Your task to perform on an android device: When is my next appointment? Image 0: 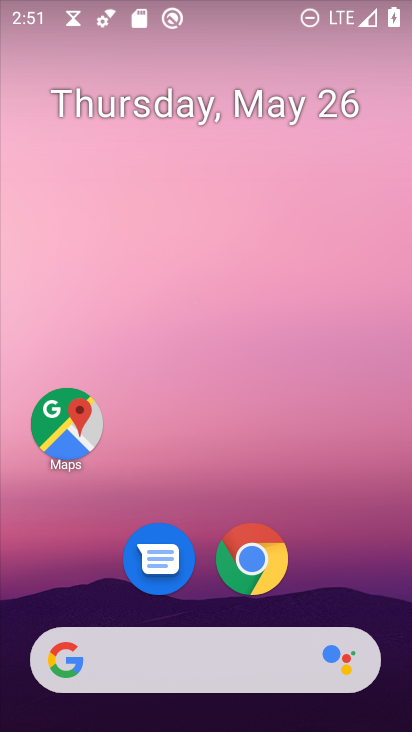
Step 0: drag from (233, 652) to (363, 111)
Your task to perform on an android device: When is my next appointment? Image 1: 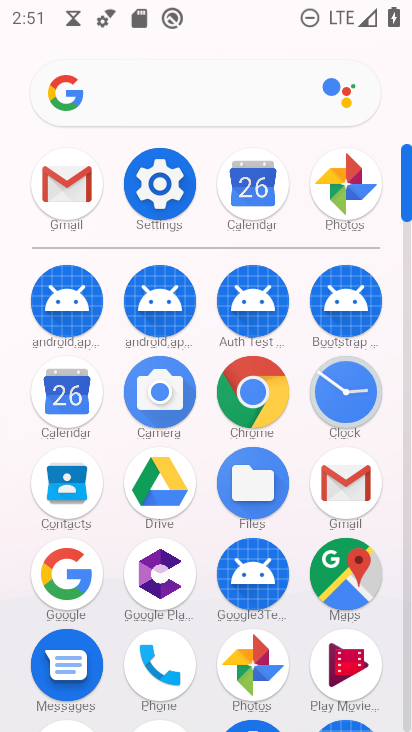
Step 1: click (63, 405)
Your task to perform on an android device: When is my next appointment? Image 2: 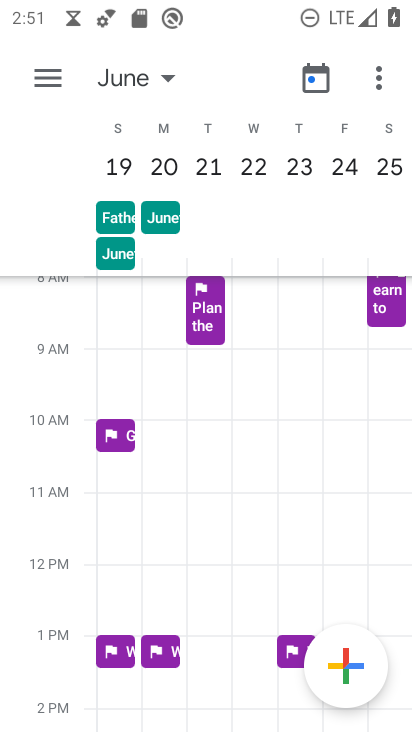
Step 2: click (114, 80)
Your task to perform on an android device: When is my next appointment? Image 3: 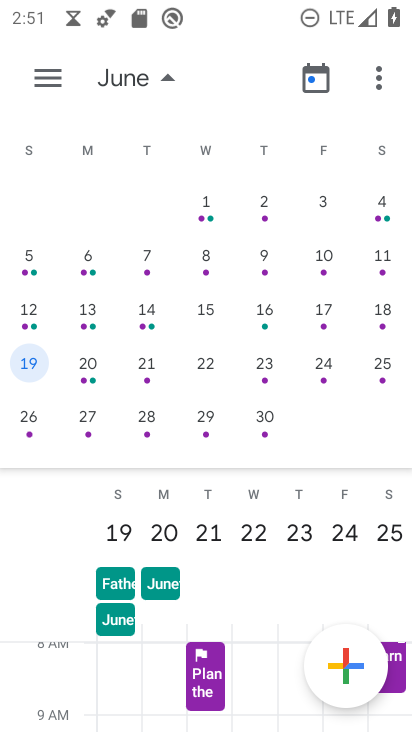
Step 3: drag from (110, 379) to (348, 378)
Your task to perform on an android device: When is my next appointment? Image 4: 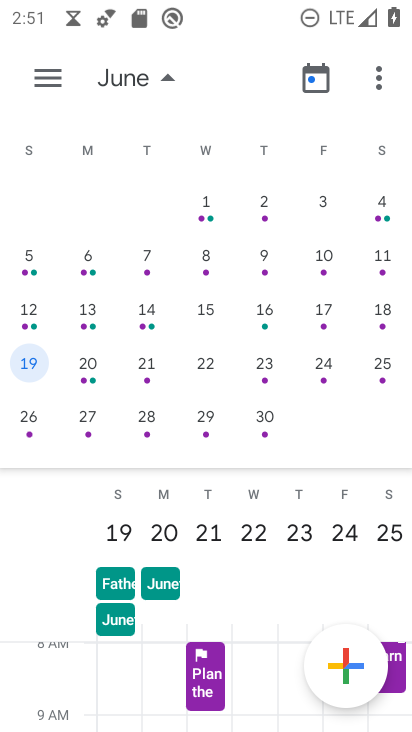
Step 4: drag from (123, 317) to (394, 395)
Your task to perform on an android device: When is my next appointment? Image 5: 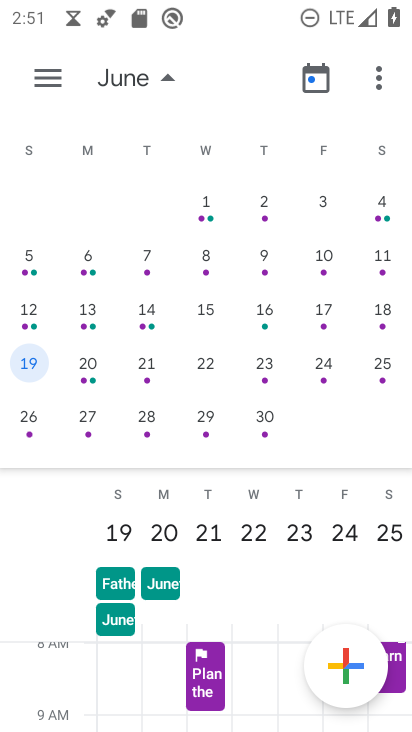
Step 5: drag from (60, 283) to (405, 284)
Your task to perform on an android device: When is my next appointment? Image 6: 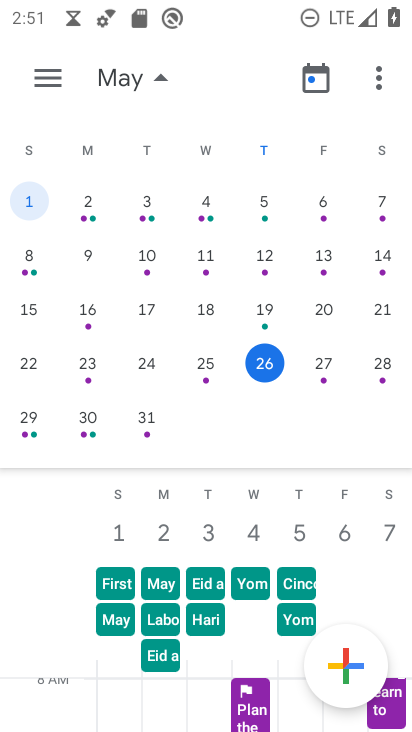
Step 6: drag from (196, 309) to (405, 304)
Your task to perform on an android device: When is my next appointment? Image 7: 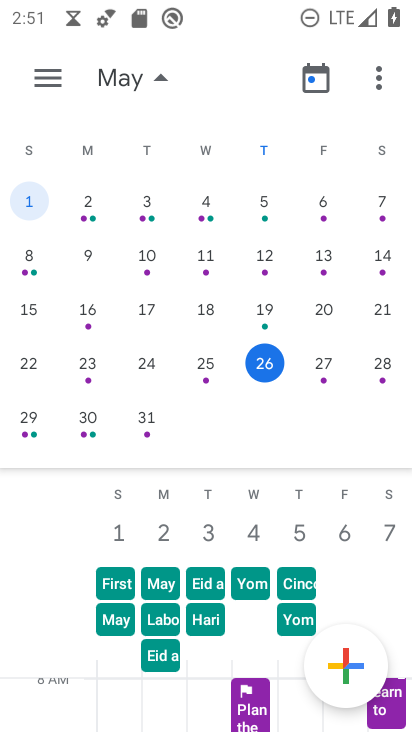
Step 7: click (271, 361)
Your task to perform on an android device: When is my next appointment? Image 8: 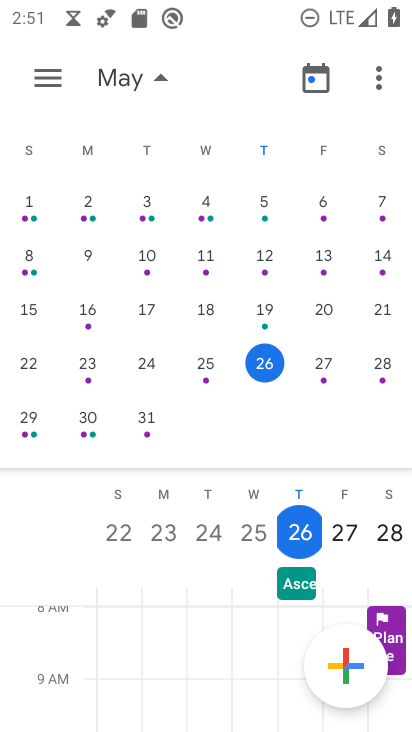
Step 8: click (50, 79)
Your task to perform on an android device: When is my next appointment? Image 9: 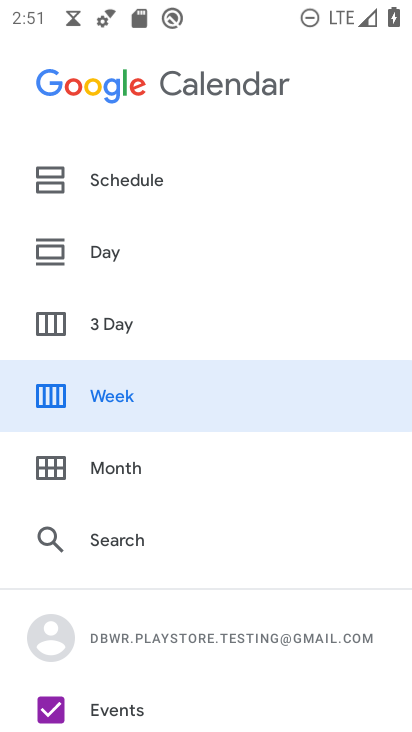
Step 9: click (108, 180)
Your task to perform on an android device: When is my next appointment? Image 10: 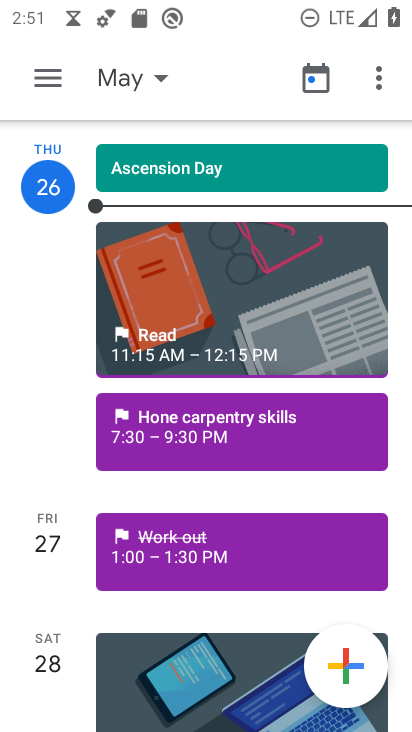
Step 10: task complete